Your task to perform on an android device: open sync settings in chrome Image 0: 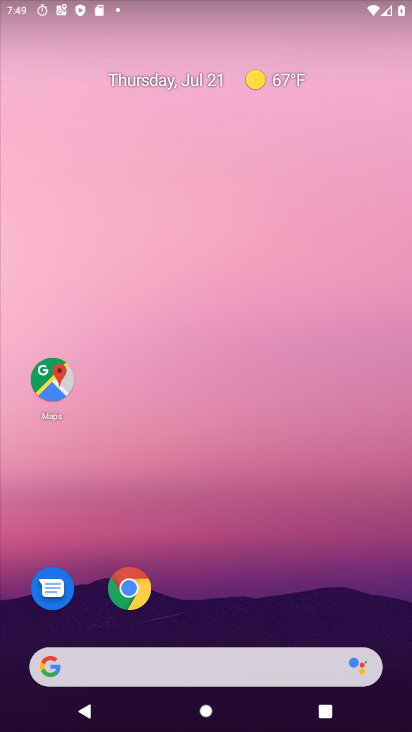
Step 0: click (145, 575)
Your task to perform on an android device: open sync settings in chrome Image 1: 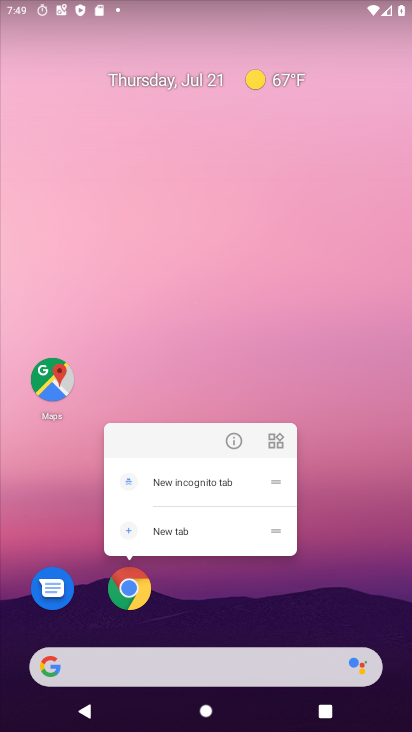
Step 1: click (143, 586)
Your task to perform on an android device: open sync settings in chrome Image 2: 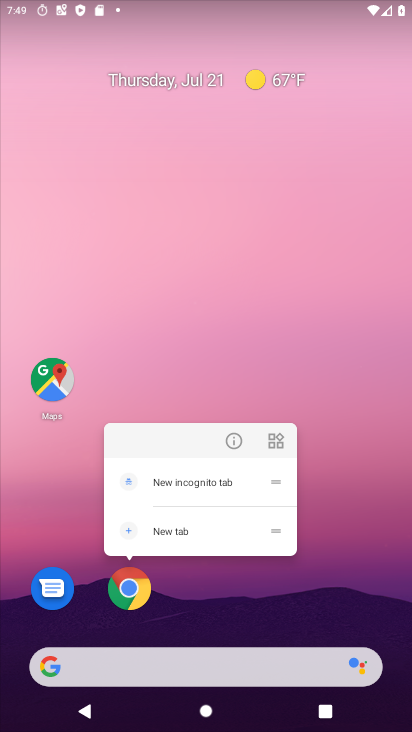
Step 2: click (137, 582)
Your task to perform on an android device: open sync settings in chrome Image 3: 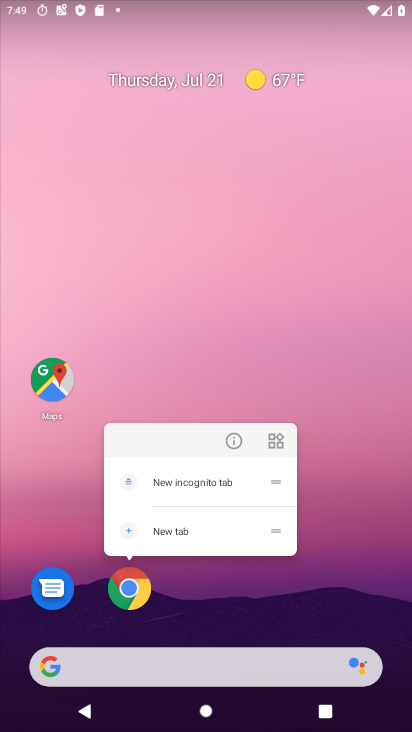
Step 3: click (128, 599)
Your task to perform on an android device: open sync settings in chrome Image 4: 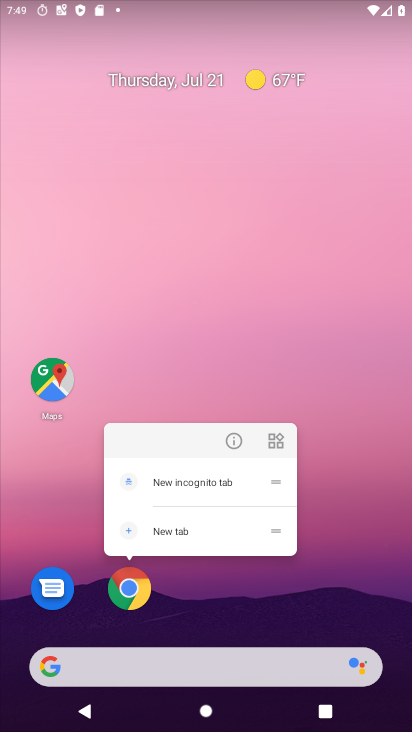
Step 4: click (132, 584)
Your task to perform on an android device: open sync settings in chrome Image 5: 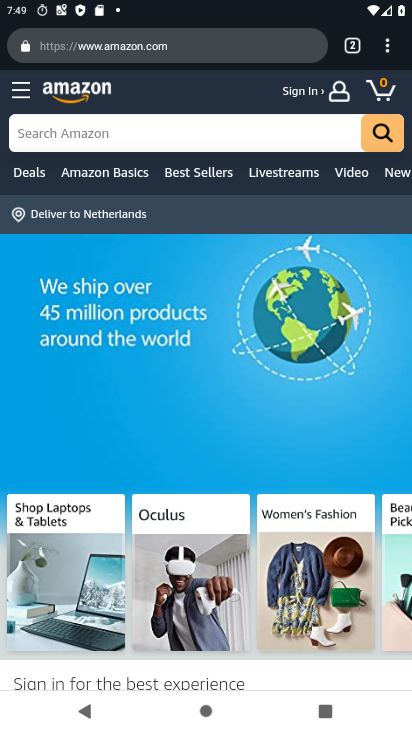
Step 5: click (393, 46)
Your task to perform on an android device: open sync settings in chrome Image 6: 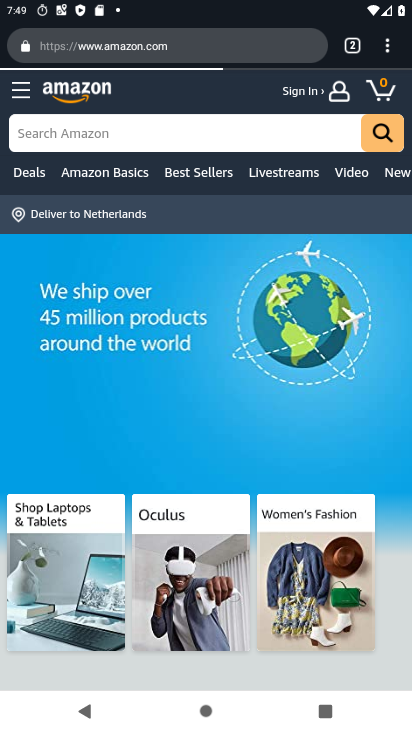
Step 6: click (393, 46)
Your task to perform on an android device: open sync settings in chrome Image 7: 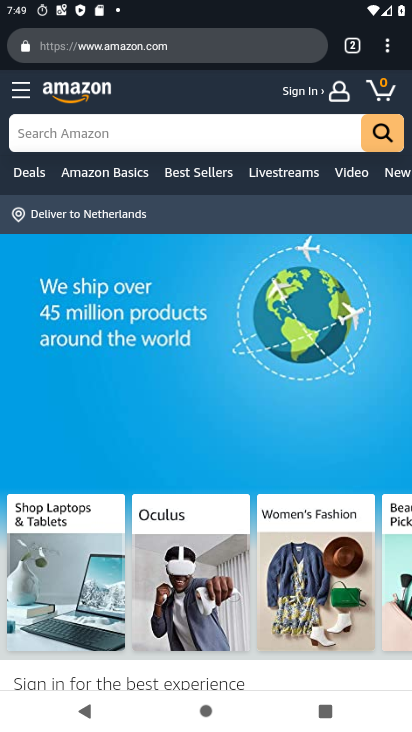
Step 7: click (389, 49)
Your task to perform on an android device: open sync settings in chrome Image 8: 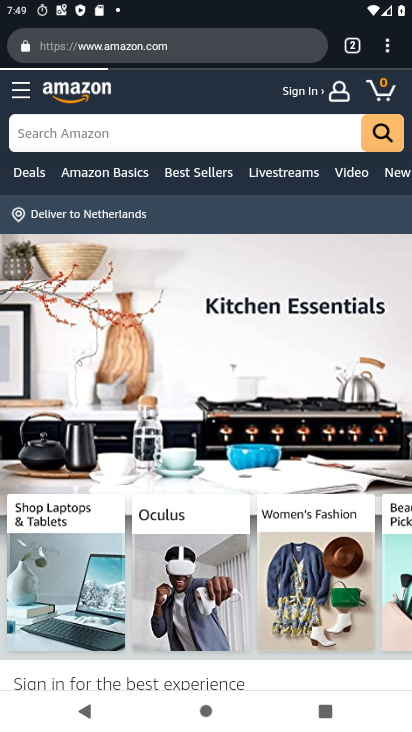
Step 8: click (389, 49)
Your task to perform on an android device: open sync settings in chrome Image 9: 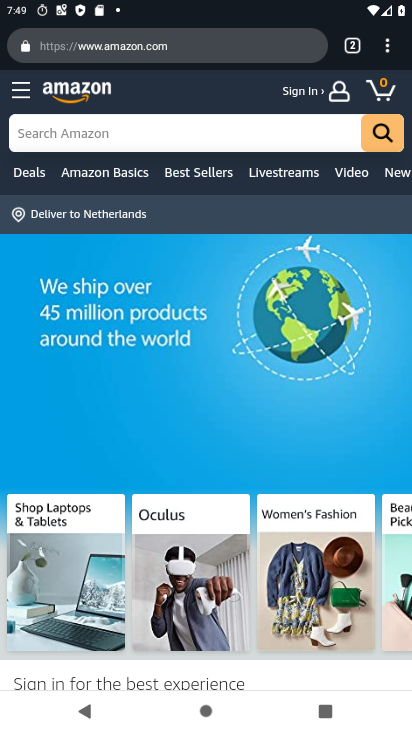
Step 9: click (389, 37)
Your task to perform on an android device: open sync settings in chrome Image 10: 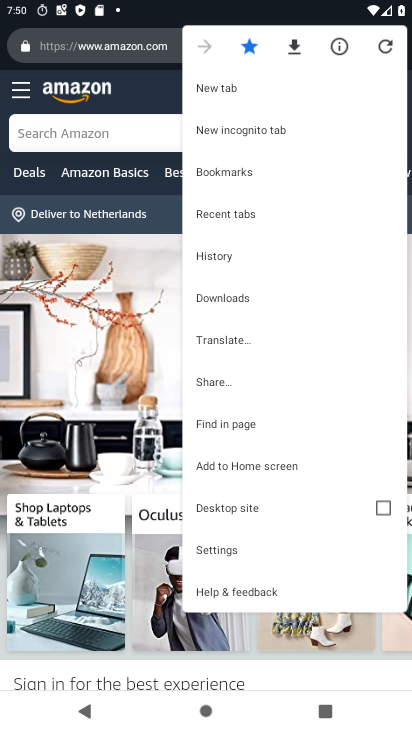
Step 10: click (230, 547)
Your task to perform on an android device: open sync settings in chrome Image 11: 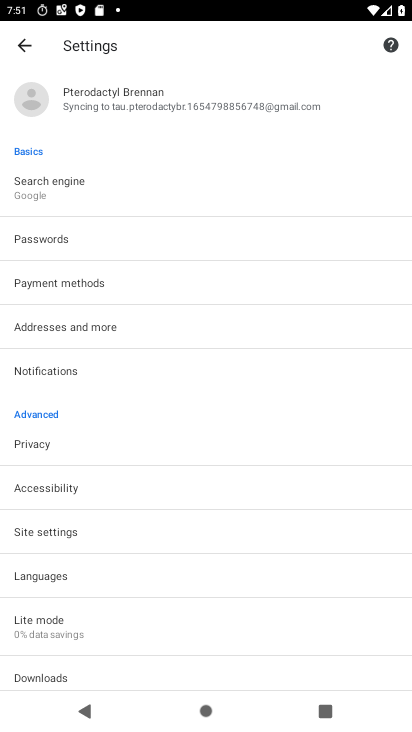
Step 11: click (125, 109)
Your task to perform on an android device: open sync settings in chrome Image 12: 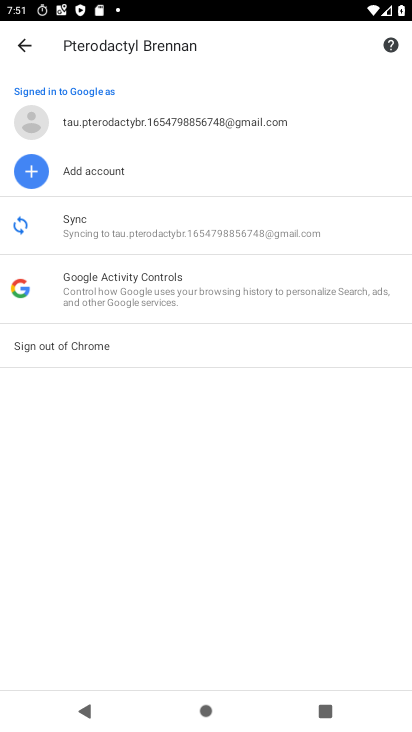
Step 12: click (135, 119)
Your task to perform on an android device: open sync settings in chrome Image 13: 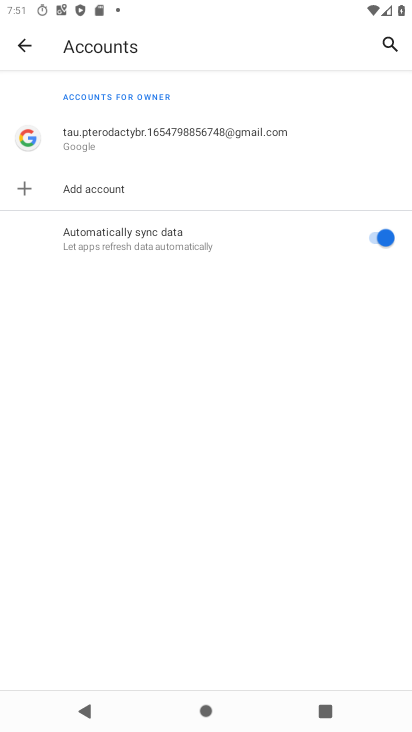
Step 13: press back button
Your task to perform on an android device: open sync settings in chrome Image 14: 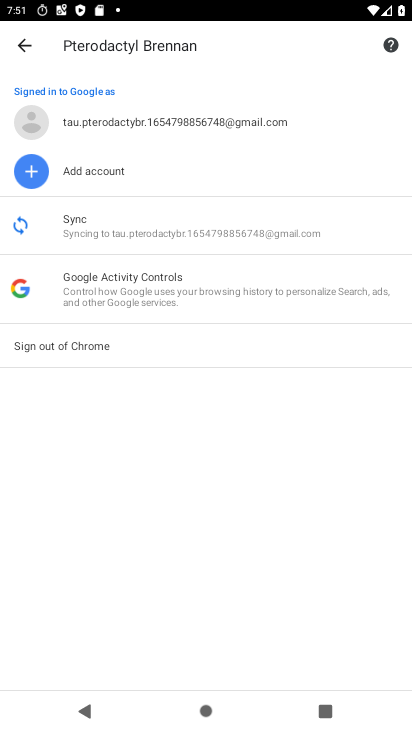
Step 14: click (158, 236)
Your task to perform on an android device: open sync settings in chrome Image 15: 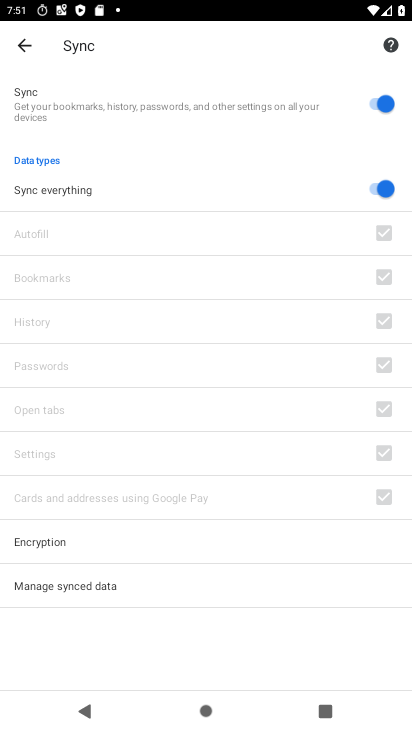
Step 15: task complete